Your task to perform on an android device: turn off location history Image 0: 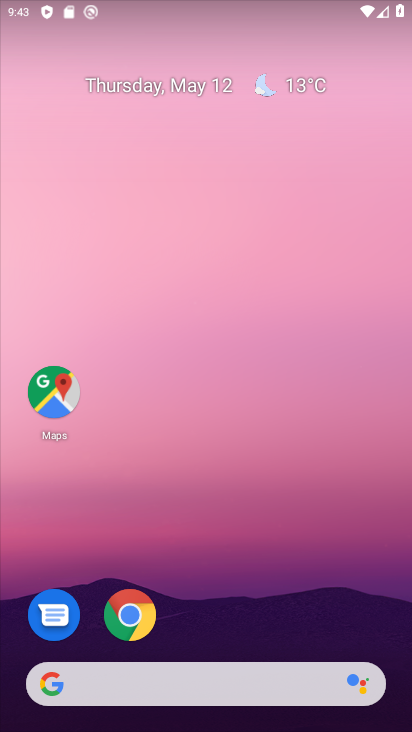
Step 0: drag from (293, 612) to (276, 154)
Your task to perform on an android device: turn off location history Image 1: 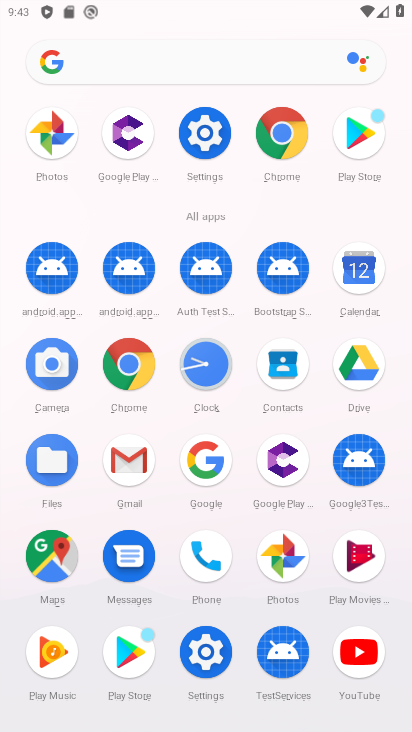
Step 1: click (211, 133)
Your task to perform on an android device: turn off location history Image 2: 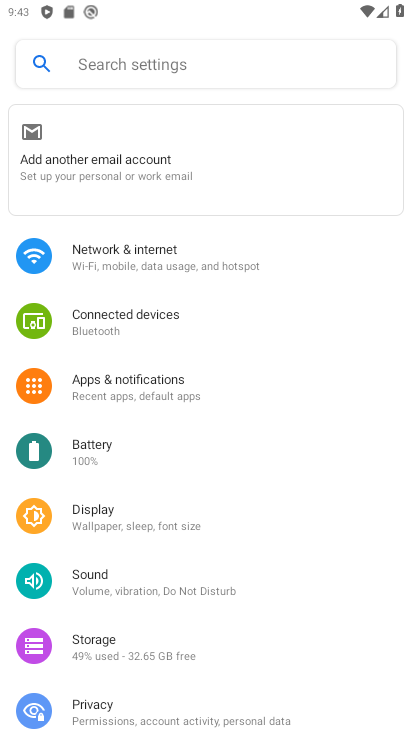
Step 2: drag from (144, 625) to (192, 294)
Your task to perform on an android device: turn off location history Image 3: 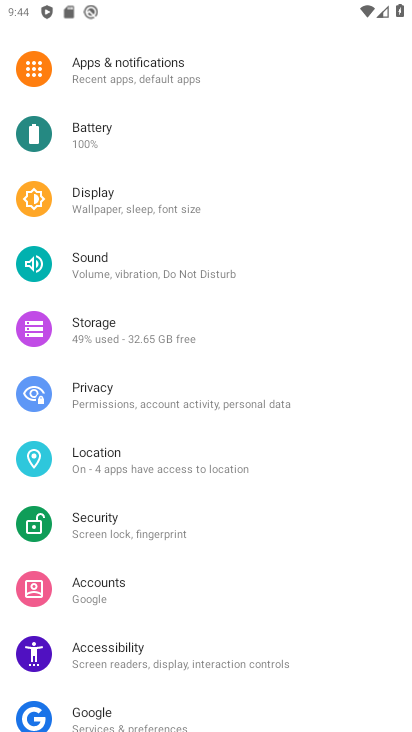
Step 3: click (122, 466)
Your task to perform on an android device: turn off location history Image 4: 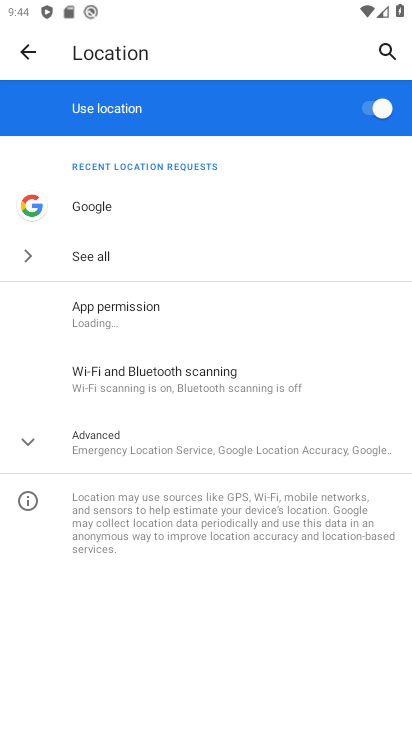
Step 4: click (375, 107)
Your task to perform on an android device: turn off location history Image 5: 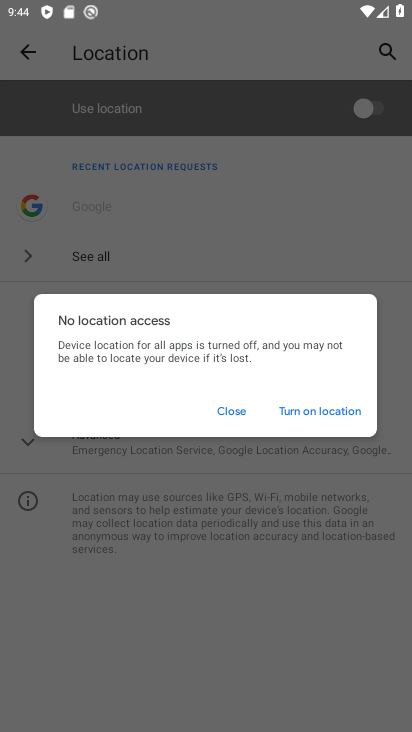
Step 5: task complete